Your task to perform on an android device: show emergency info Image 0: 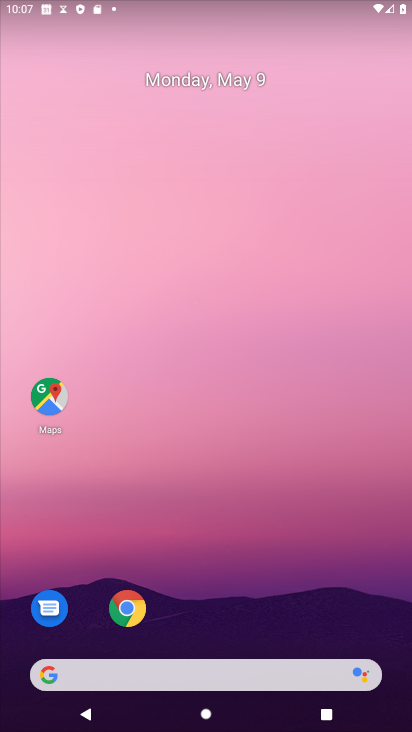
Step 0: drag from (190, 593) to (256, 126)
Your task to perform on an android device: show emergency info Image 1: 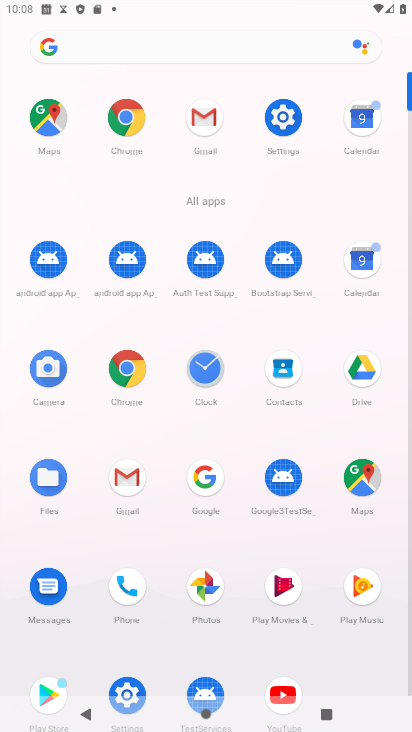
Step 1: click (277, 118)
Your task to perform on an android device: show emergency info Image 2: 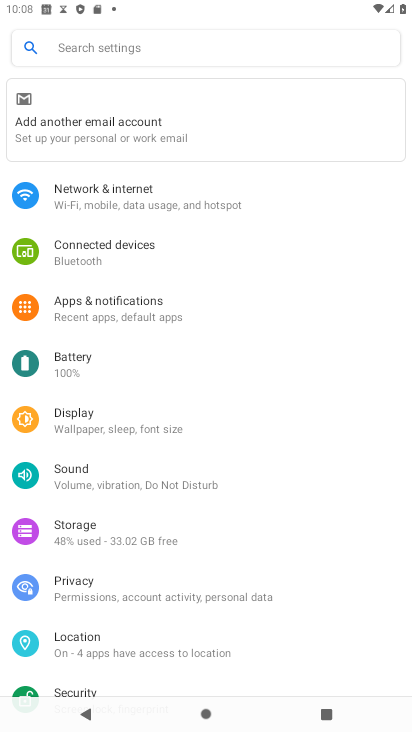
Step 2: drag from (256, 607) to (288, 163)
Your task to perform on an android device: show emergency info Image 3: 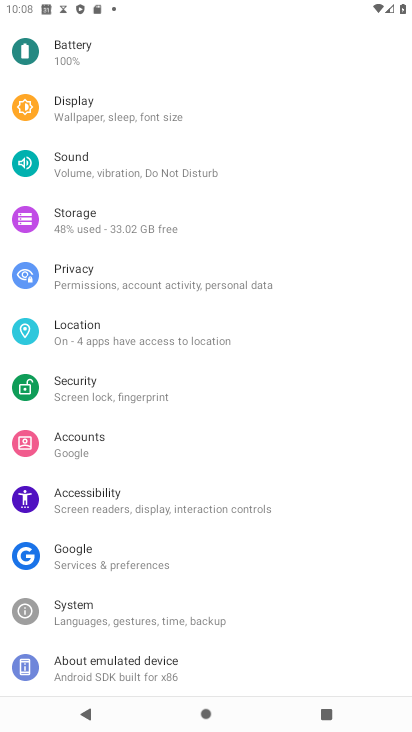
Step 3: click (119, 659)
Your task to perform on an android device: show emergency info Image 4: 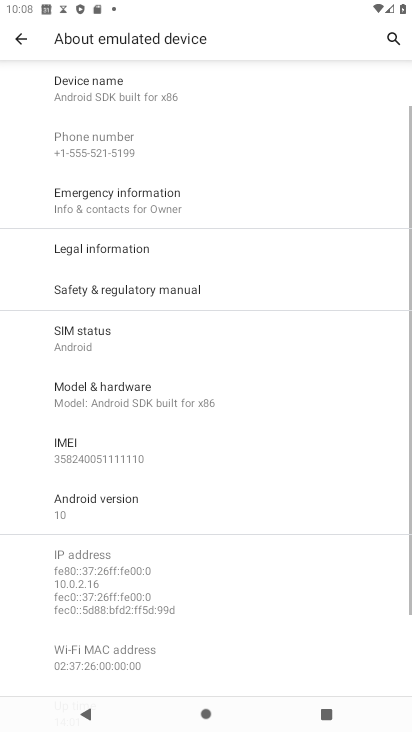
Step 4: click (151, 205)
Your task to perform on an android device: show emergency info Image 5: 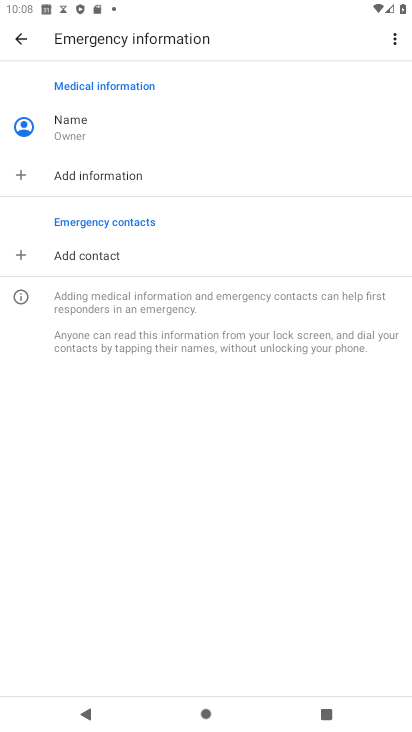
Step 5: task complete